Your task to perform on an android device: Go to Maps Image 0: 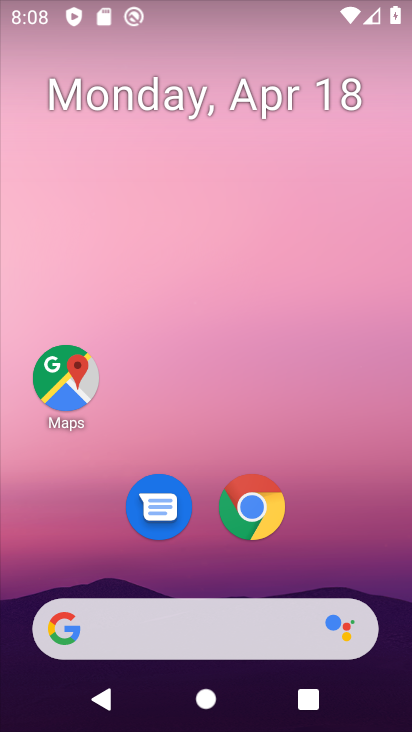
Step 0: click (58, 368)
Your task to perform on an android device: Go to Maps Image 1: 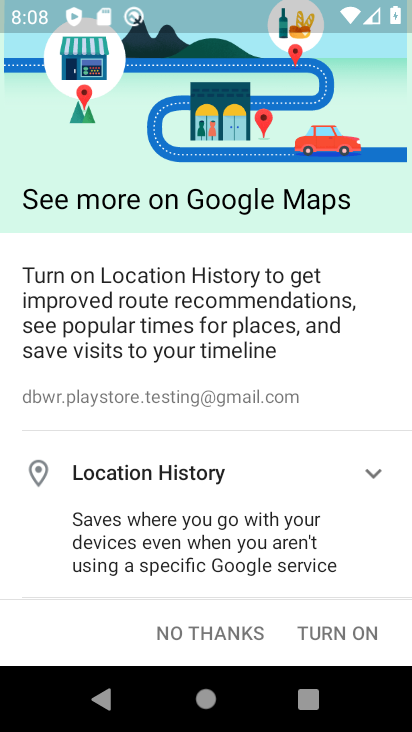
Step 1: click (211, 637)
Your task to perform on an android device: Go to Maps Image 2: 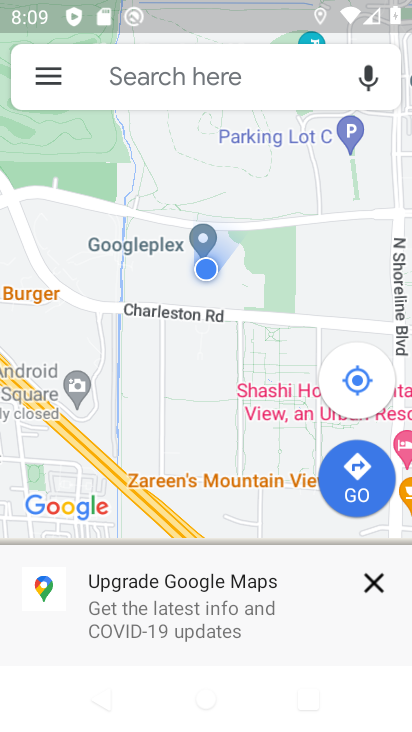
Step 2: task complete